Your task to perform on an android device: Open eBay Image 0: 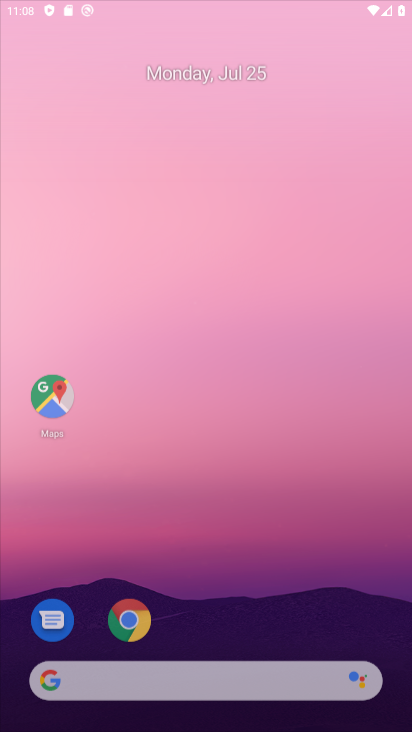
Step 0: click (84, 218)
Your task to perform on an android device: Open eBay Image 1: 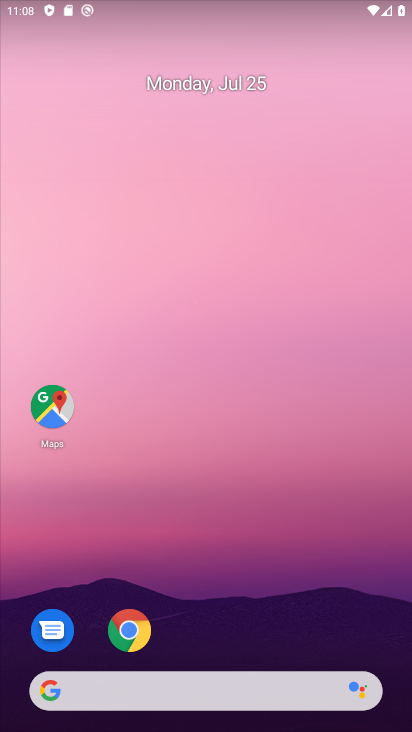
Step 1: click (49, 394)
Your task to perform on an android device: Open eBay Image 2: 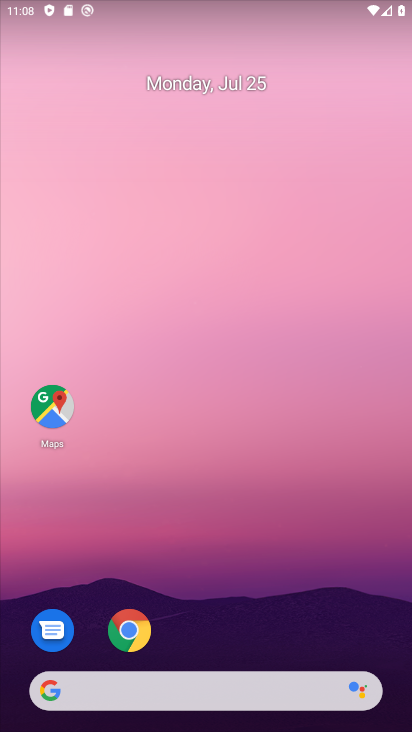
Step 2: click (358, 387)
Your task to perform on an android device: Open eBay Image 3: 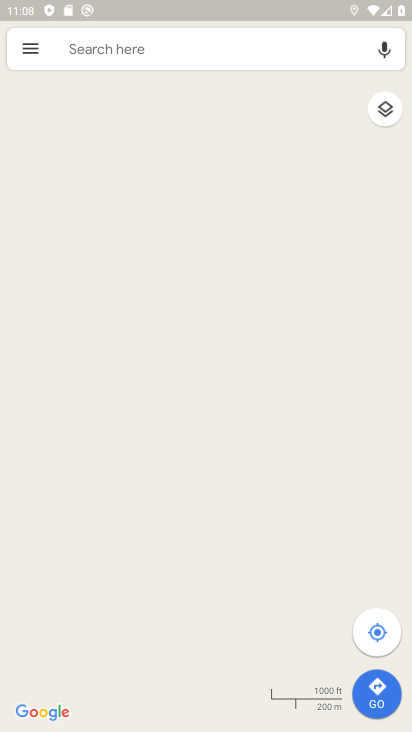
Step 3: press back button
Your task to perform on an android device: Open eBay Image 4: 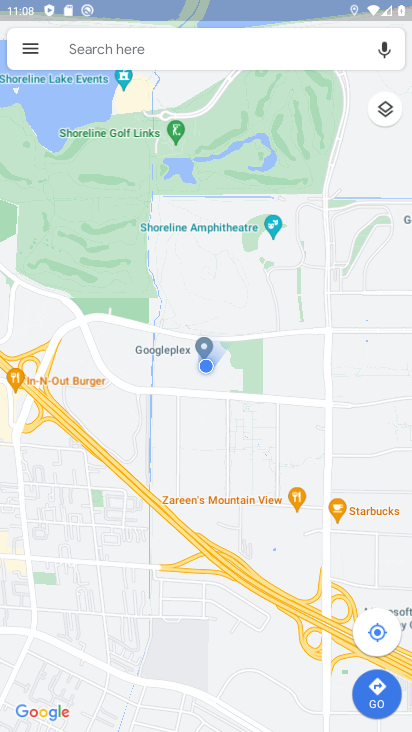
Step 4: press back button
Your task to perform on an android device: Open eBay Image 5: 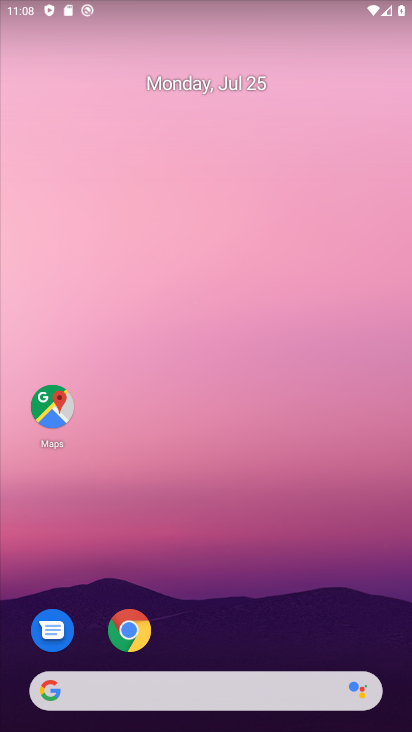
Step 5: press home button
Your task to perform on an android device: Open eBay Image 6: 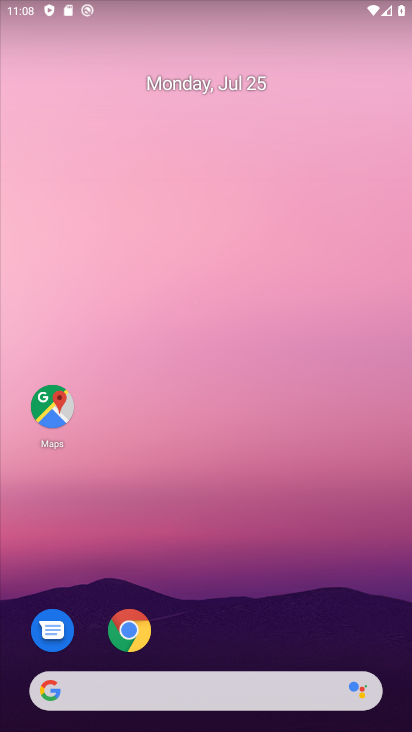
Step 6: drag from (211, 579) to (192, 303)
Your task to perform on an android device: Open eBay Image 7: 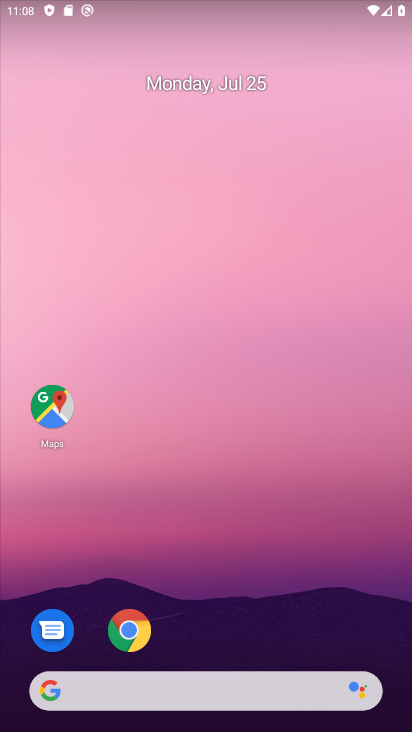
Step 7: drag from (178, 337) to (156, 255)
Your task to perform on an android device: Open eBay Image 8: 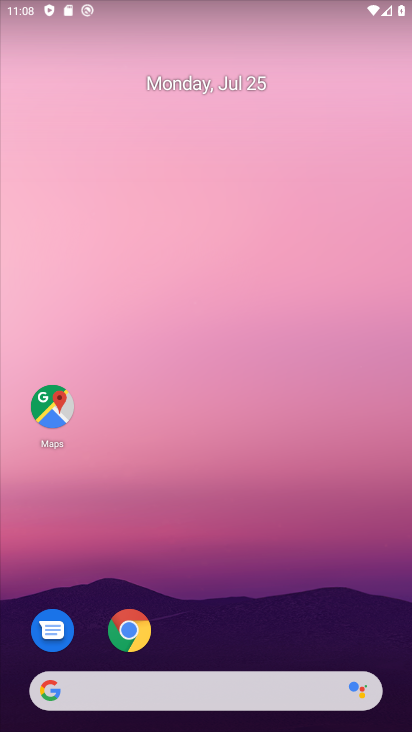
Step 8: drag from (99, 583) to (130, 221)
Your task to perform on an android device: Open eBay Image 9: 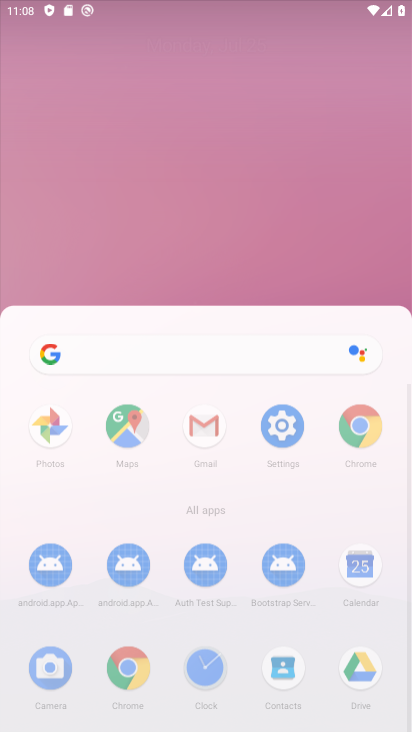
Step 9: drag from (195, 487) to (156, 134)
Your task to perform on an android device: Open eBay Image 10: 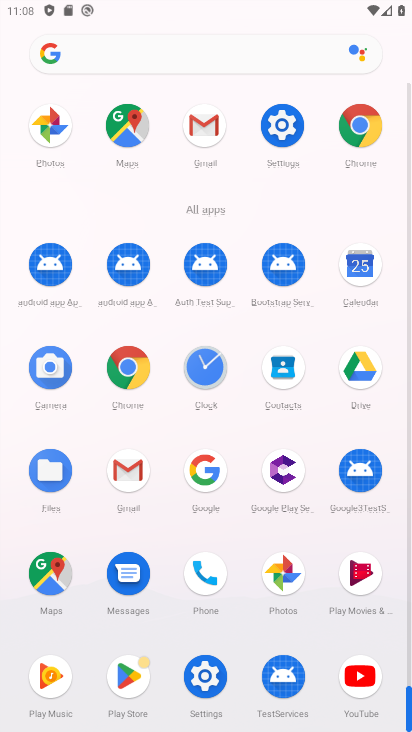
Step 10: drag from (188, 471) to (130, 8)
Your task to perform on an android device: Open eBay Image 11: 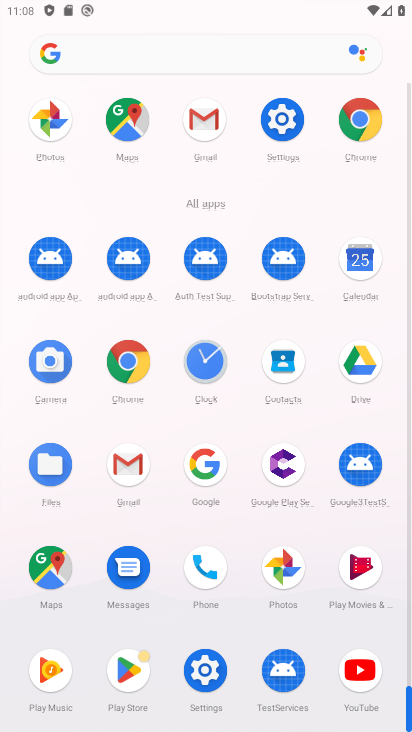
Step 11: click (358, 125)
Your task to perform on an android device: Open eBay Image 12: 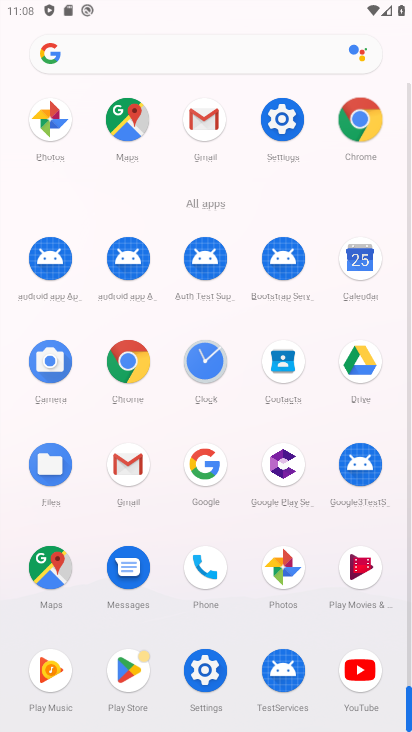
Step 12: click (359, 128)
Your task to perform on an android device: Open eBay Image 13: 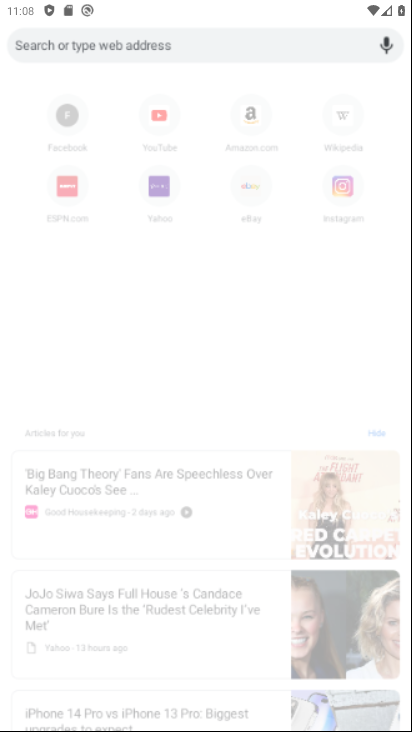
Step 13: click (360, 131)
Your task to perform on an android device: Open eBay Image 14: 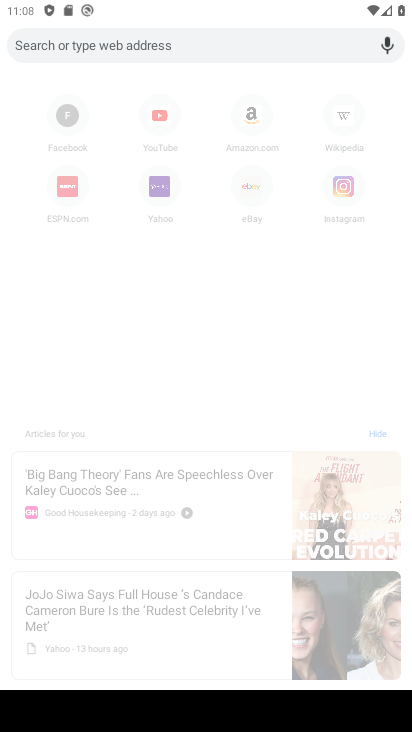
Step 14: click (87, 41)
Your task to perform on an android device: Open eBay Image 15: 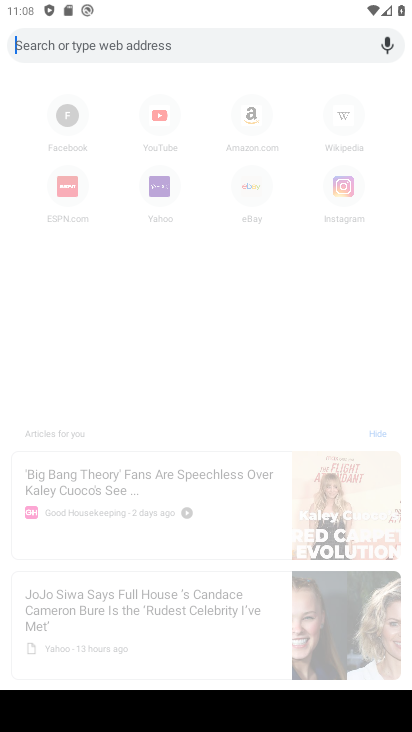
Step 15: click (164, 304)
Your task to perform on an android device: Open eBay Image 16: 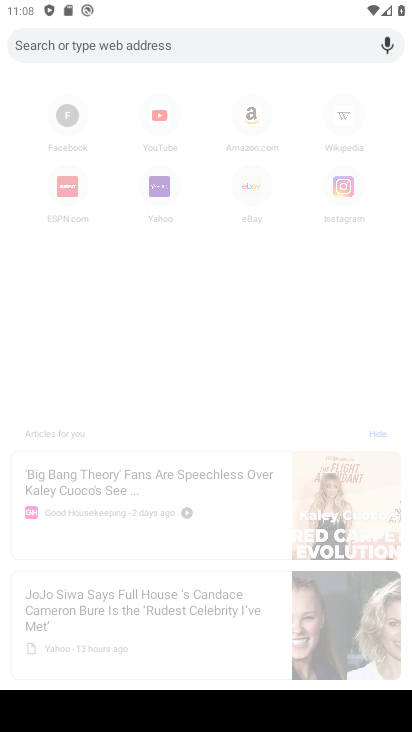
Step 16: click (173, 296)
Your task to perform on an android device: Open eBay Image 17: 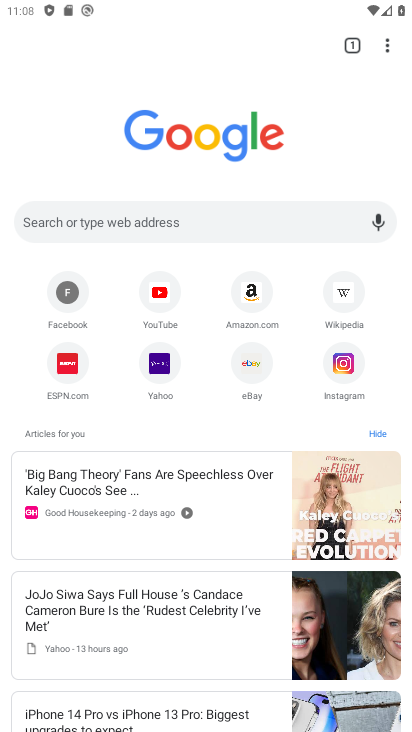
Step 17: click (239, 364)
Your task to perform on an android device: Open eBay Image 18: 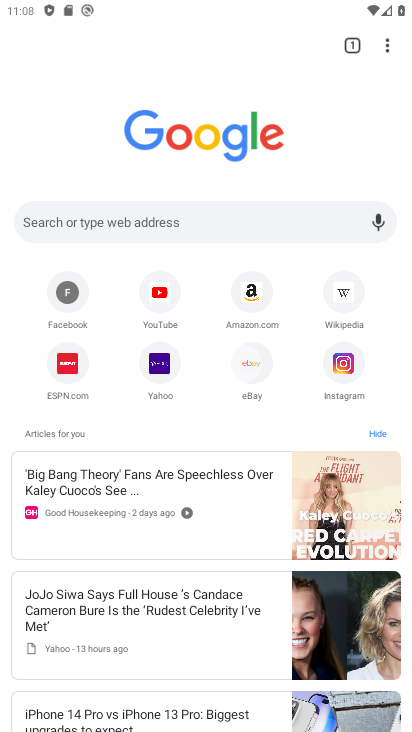
Step 18: click (248, 367)
Your task to perform on an android device: Open eBay Image 19: 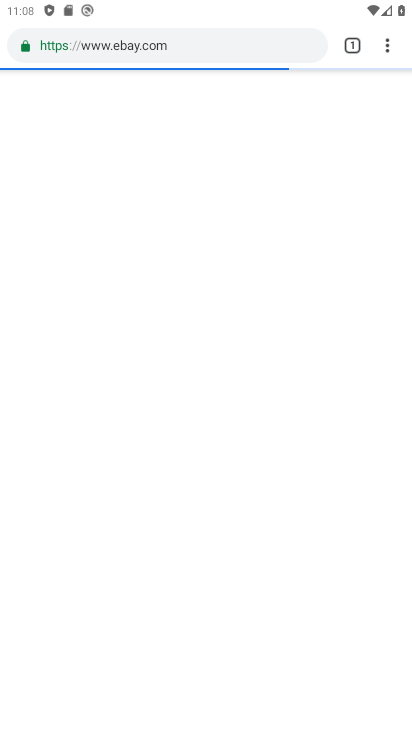
Step 19: click (252, 365)
Your task to perform on an android device: Open eBay Image 20: 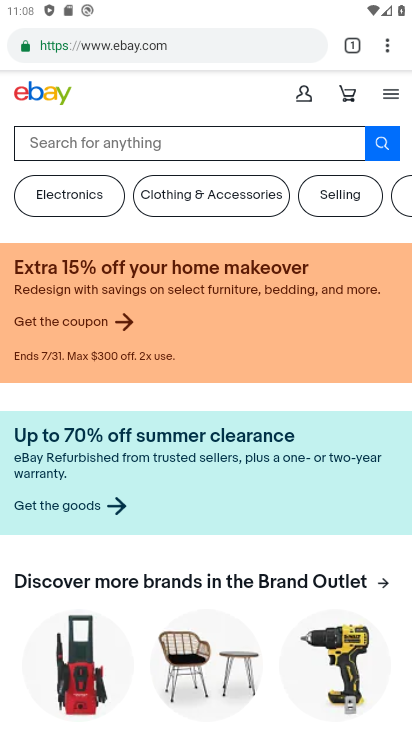
Step 20: task complete